Your task to perform on an android device: open the mobile data screen to see how much data has been used Image 0: 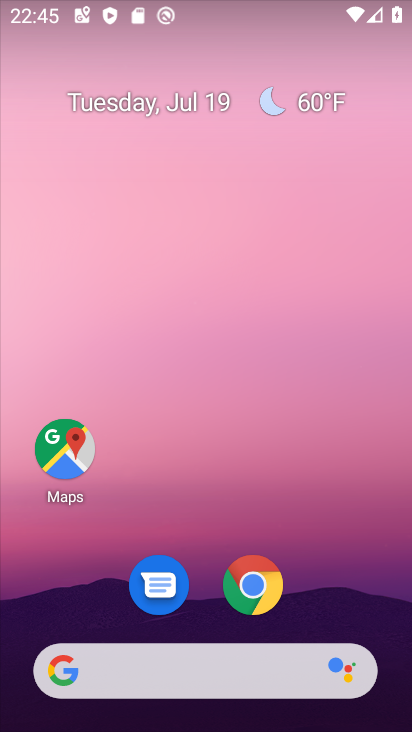
Step 0: drag from (211, 487) to (273, 103)
Your task to perform on an android device: open the mobile data screen to see how much data has been used Image 1: 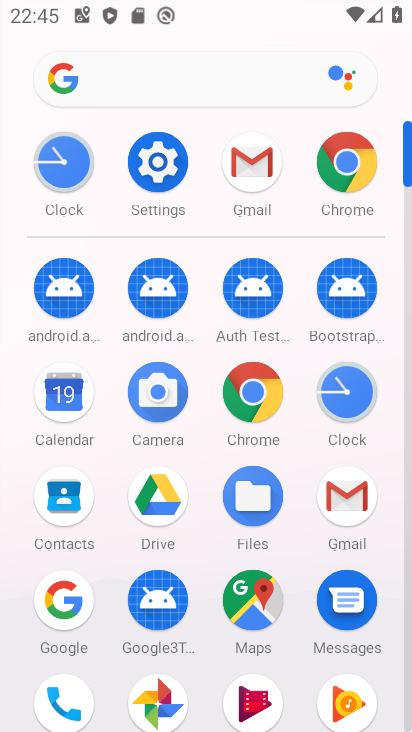
Step 1: click (169, 157)
Your task to perform on an android device: open the mobile data screen to see how much data has been used Image 2: 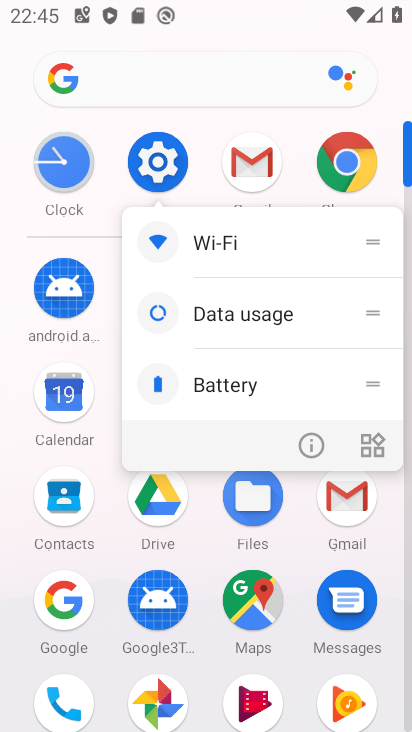
Step 2: click (176, 154)
Your task to perform on an android device: open the mobile data screen to see how much data has been used Image 3: 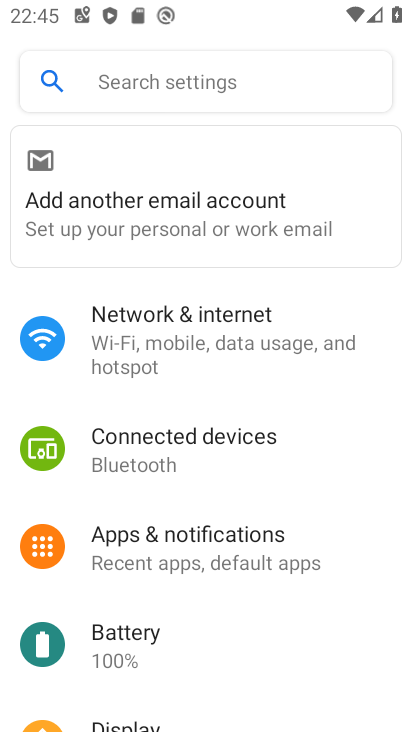
Step 3: drag from (213, 349) to (170, 567)
Your task to perform on an android device: open the mobile data screen to see how much data has been used Image 4: 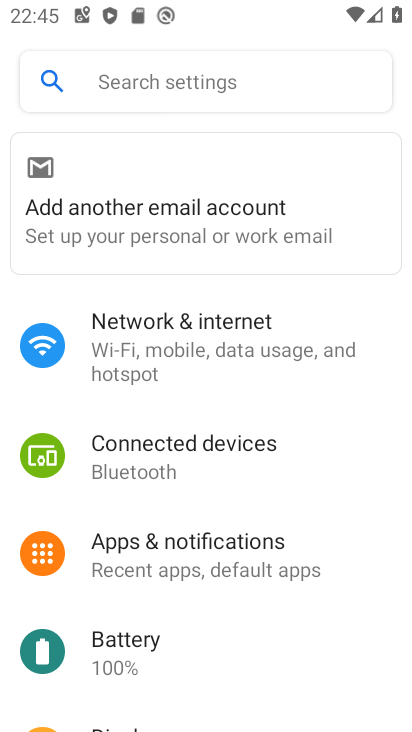
Step 4: click (246, 355)
Your task to perform on an android device: open the mobile data screen to see how much data has been used Image 5: 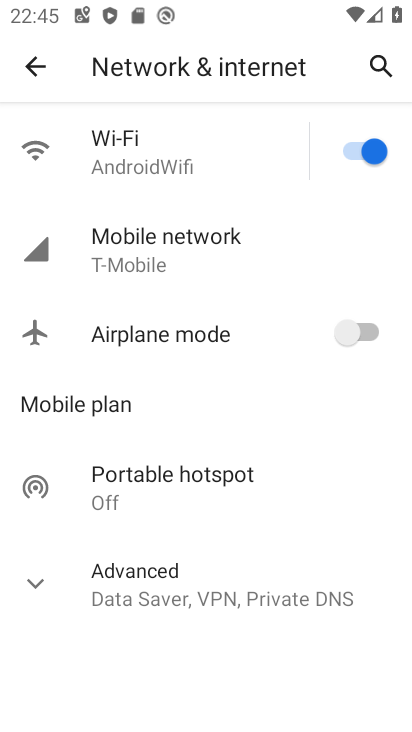
Step 5: click (210, 244)
Your task to perform on an android device: open the mobile data screen to see how much data has been used Image 6: 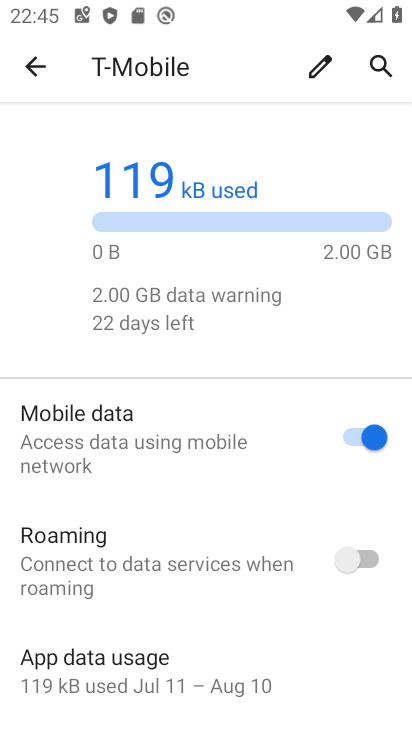
Step 6: task complete